Your task to perform on an android device: open wifi settings Image 0: 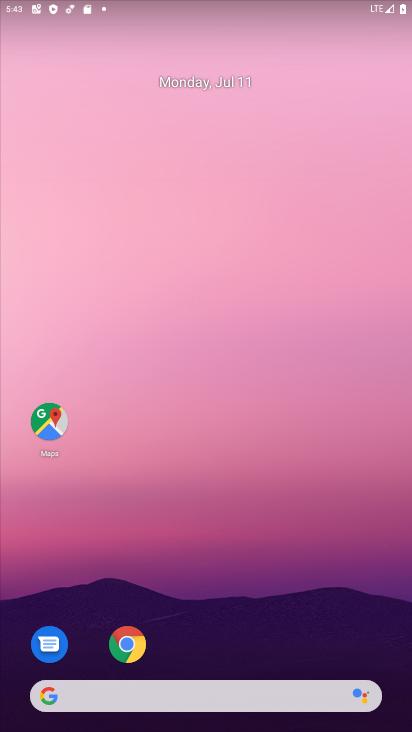
Step 0: drag from (262, 1) to (405, 363)
Your task to perform on an android device: open wifi settings Image 1: 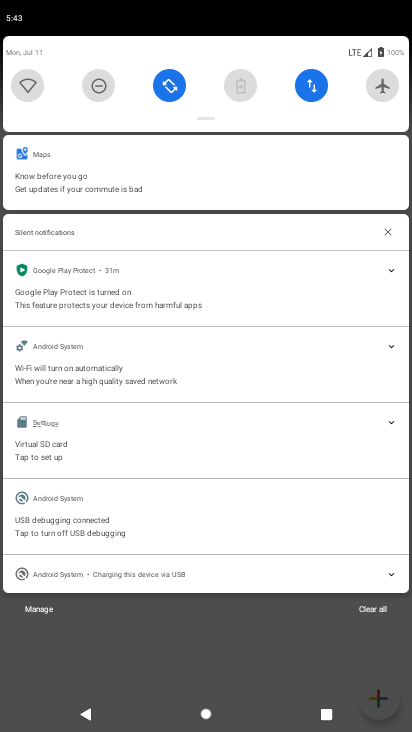
Step 1: drag from (269, 671) to (317, 72)
Your task to perform on an android device: open wifi settings Image 2: 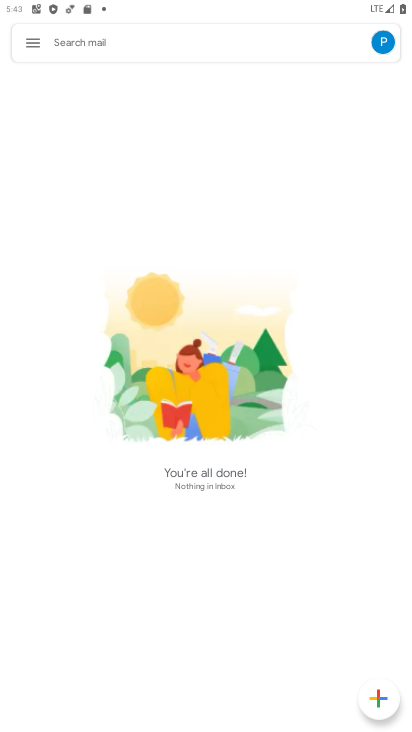
Step 2: press home button
Your task to perform on an android device: open wifi settings Image 3: 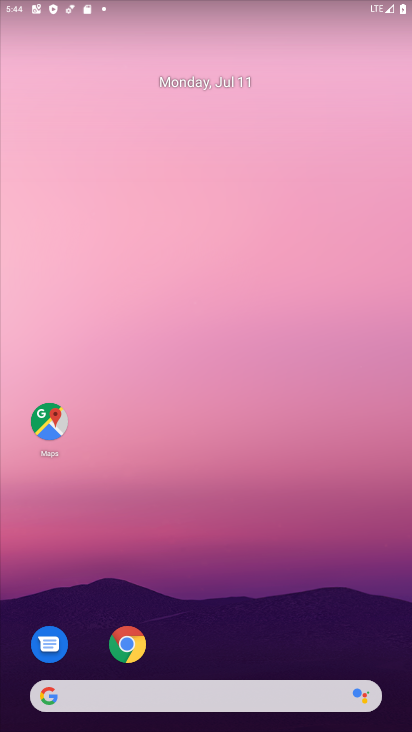
Step 3: drag from (244, 684) to (251, 88)
Your task to perform on an android device: open wifi settings Image 4: 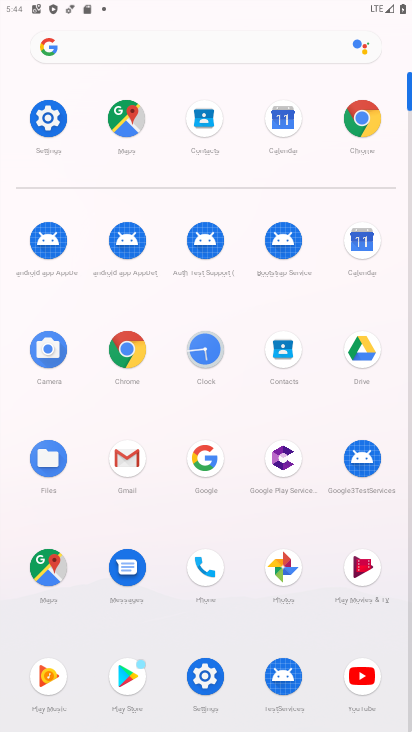
Step 4: click (65, 119)
Your task to perform on an android device: open wifi settings Image 5: 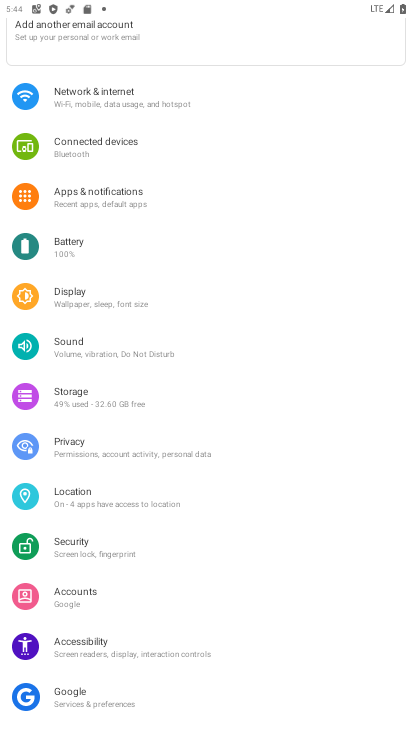
Step 5: click (128, 99)
Your task to perform on an android device: open wifi settings Image 6: 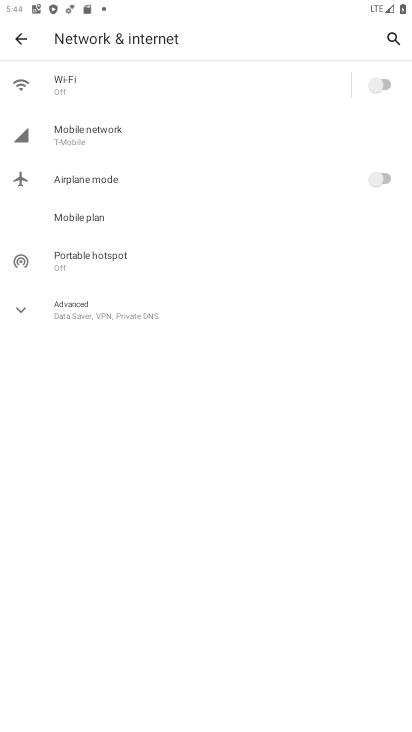
Step 6: click (77, 81)
Your task to perform on an android device: open wifi settings Image 7: 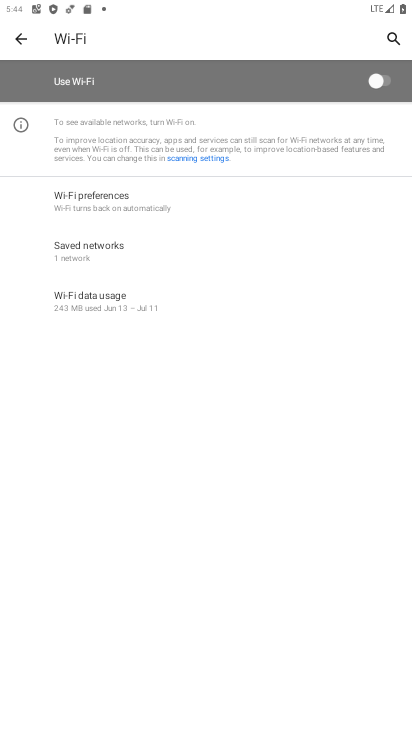
Step 7: task complete